Your task to perform on an android device: open chrome privacy settings Image 0: 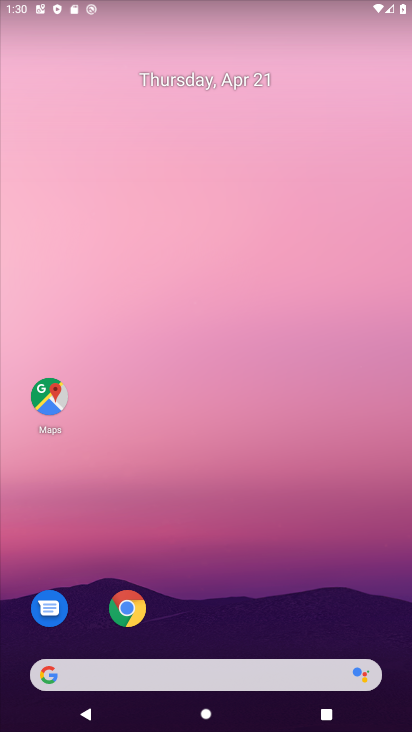
Step 0: drag from (221, 571) to (221, 135)
Your task to perform on an android device: open chrome privacy settings Image 1: 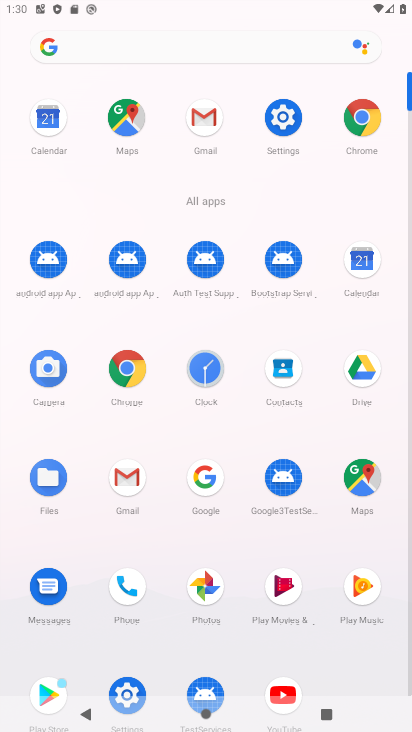
Step 1: click (266, 110)
Your task to perform on an android device: open chrome privacy settings Image 2: 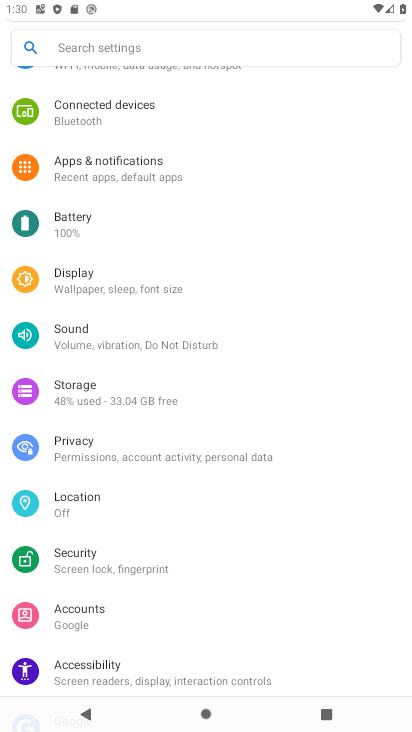
Step 2: click (125, 463)
Your task to perform on an android device: open chrome privacy settings Image 3: 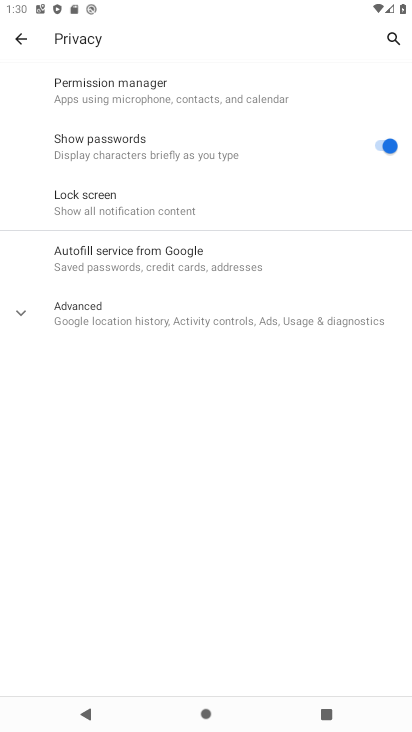
Step 3: task complete